Your task to perform on an android device: change the clock display to analog Image 0: 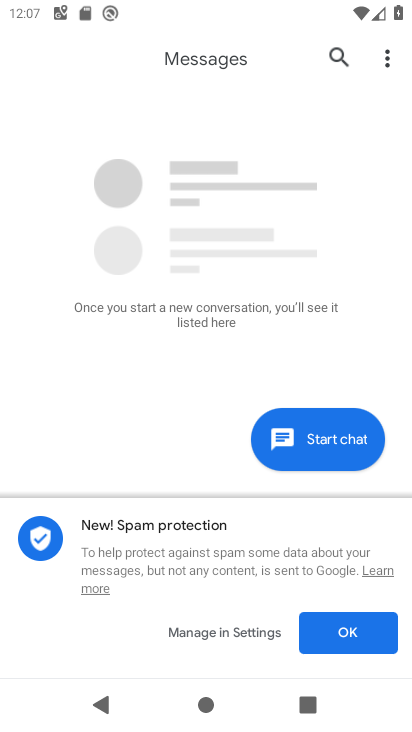
Step 0: press home button
Your task to perform on an android device: change the clock display to analog Image 1: 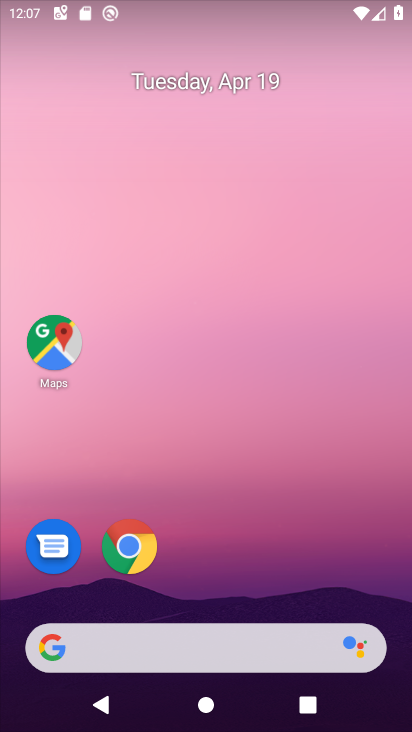
Step 1: drag from (207, 599) to (243, 6)
Your task to perform on an android device: change the clock display to analog Image 2: 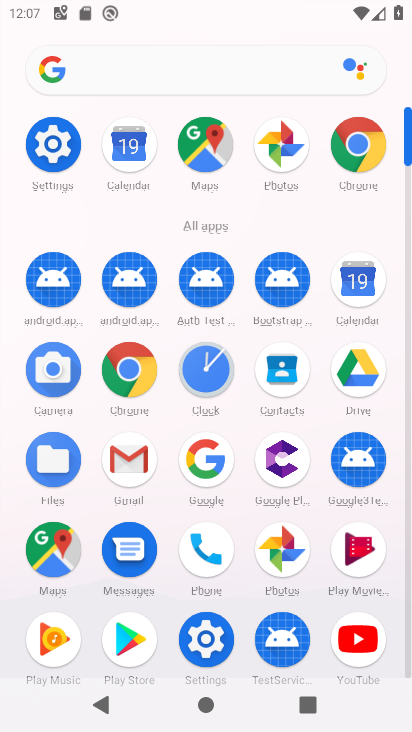
Step 2: click (198, 364)
Your task to perform on an android device: change the clock display to analog Image 3: 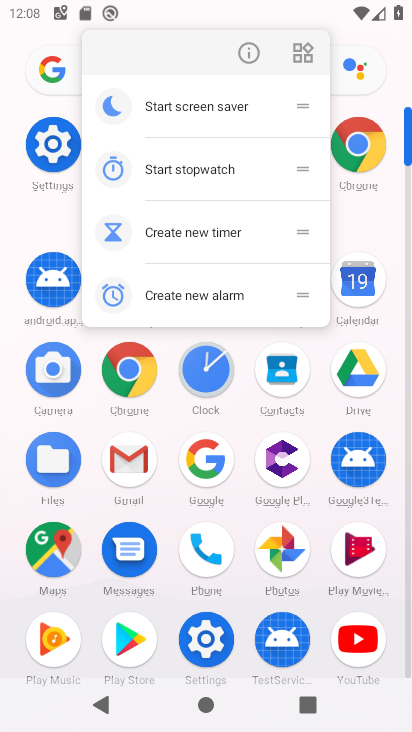
Step 3: click (202, 366)
Your task to perform on an android device: change the clock display to analog Image 4: 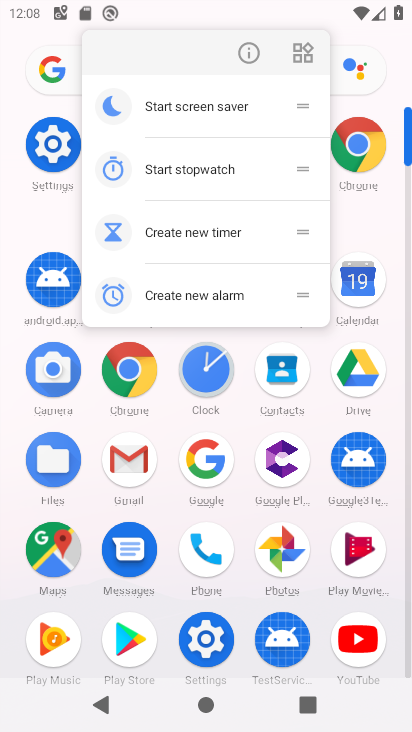
Step 4: click (211, 363)
Your task to perform on an android device: change the clock display to analog Image 5: 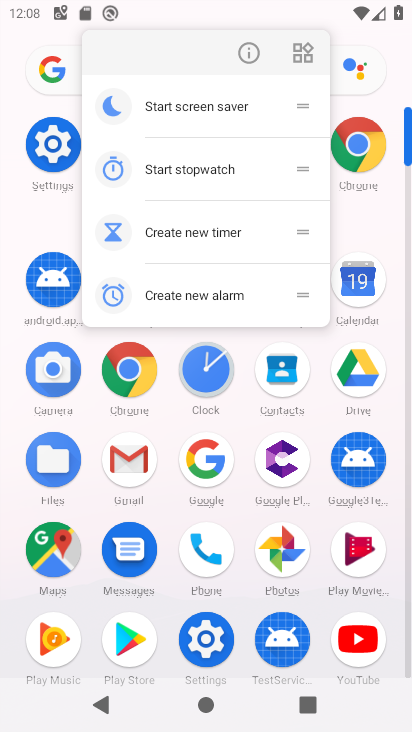
Step 5: click (210, 363)
Your task to perform on an android device: change the clock display to analog Image 6: 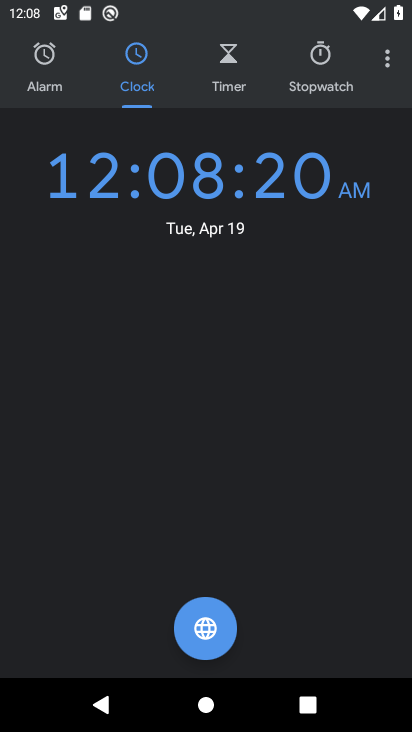
Step 6: click (204, 366)
Your task to perform on an android device: change the clock display to analog Image 7: 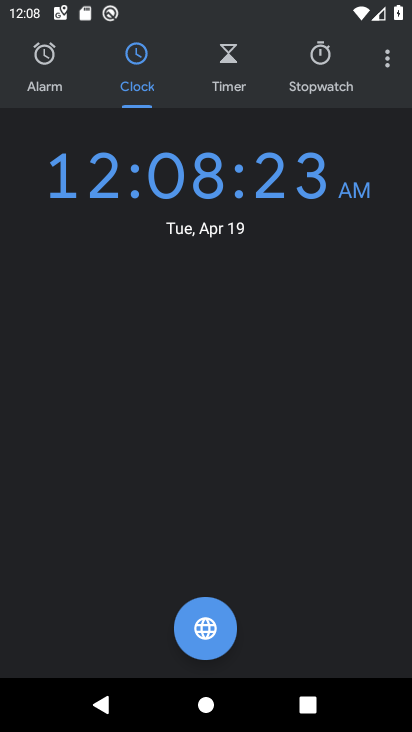
Step 7: click (381, 65)
Your task to perform on an android device: change the clock display to analog Image 8: 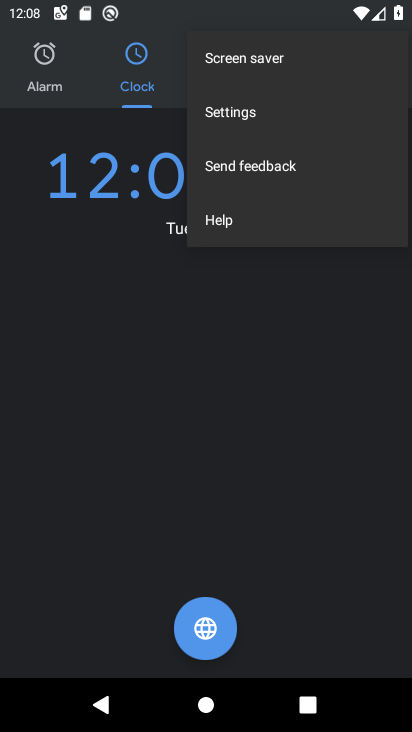
Step 8: click (262, 112)
Your task to perform on an android device: change the clock display to analog Image 9: 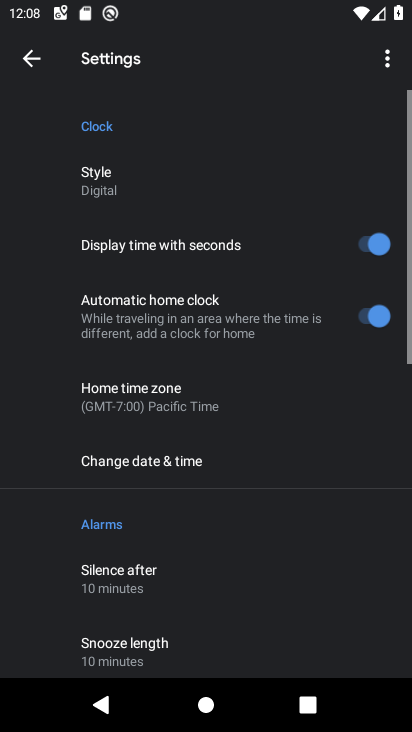
Step 9: click (125, 188)
Your task to perform on an android device: change the clock display to analog Image 10: 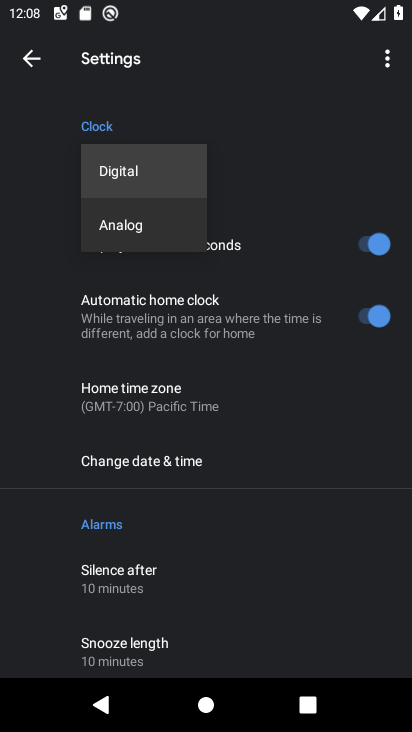
Step 10: click (133, 234)
Your task to perform on an android device: change the clock display to analog Image 11: 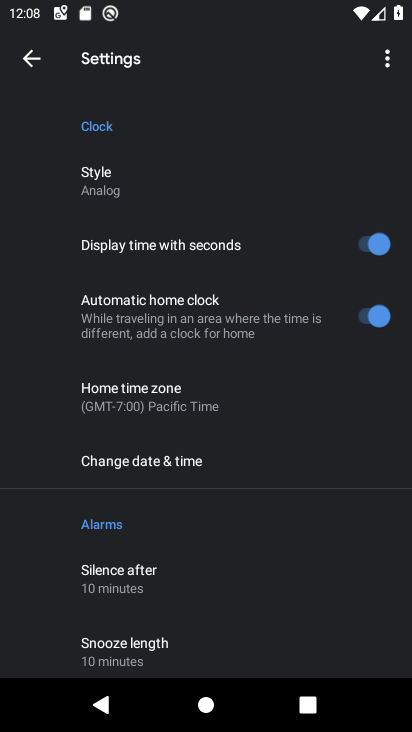
Step 11: task complete